Your task to perform on an android device: Open ESPN.com Image 0: 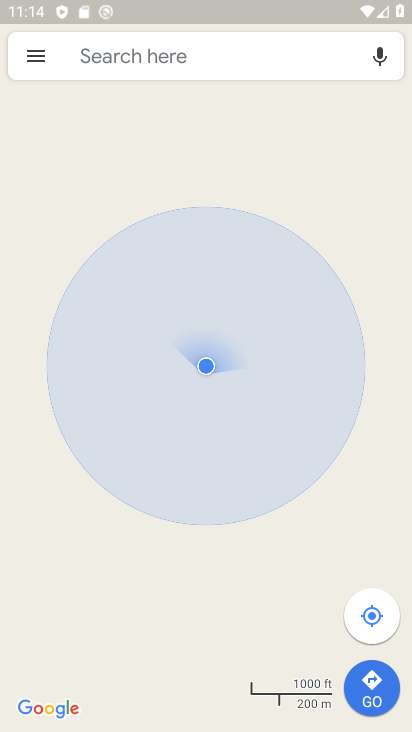
Step 0: press home button
Your task to perform on an android device: Open ESPN.com Image 1: 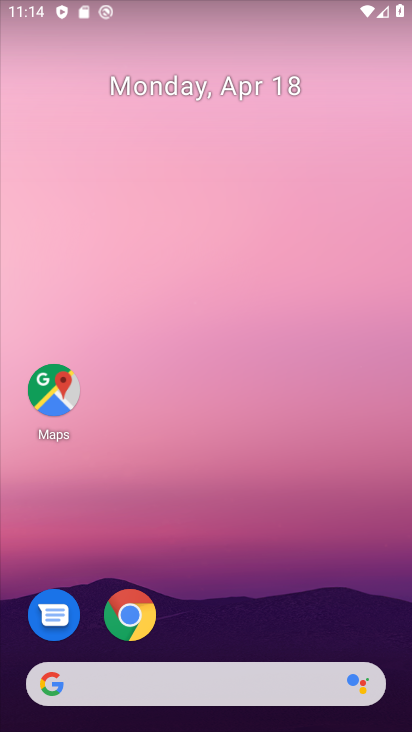
Step 1: drag from (324, 611) to (344, 82)
Your task to perform on an android device: Open ESPN.com Image 2: 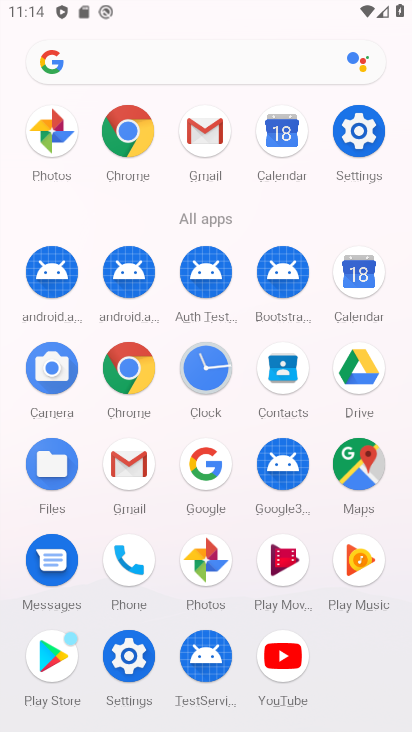
Step 2: click (138, 376)
Your task to perform on an android device: Open ESPN.com Image 3: 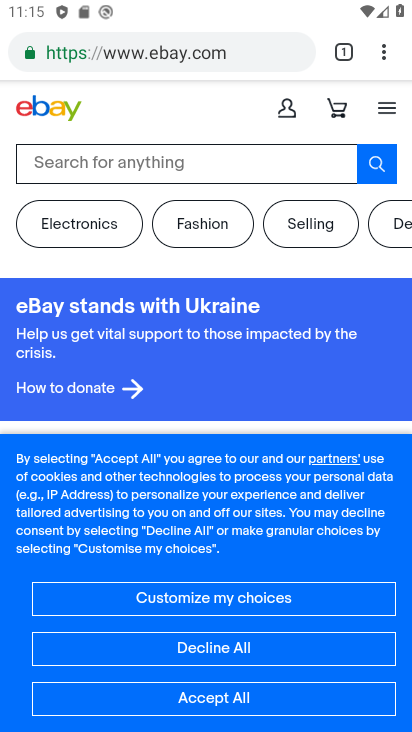
Step 3: press back button
Your task to perform on an android device: Open ESPN.com Image 4: 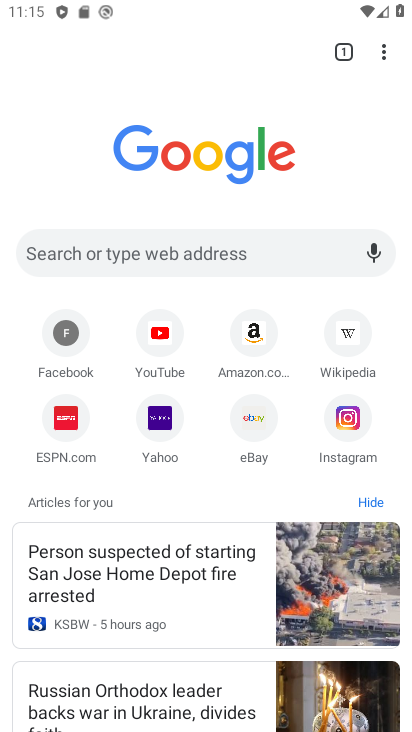
Step 4: click (61, 433)
Your task to perform on an android device: Open ESPN.com Image 5: 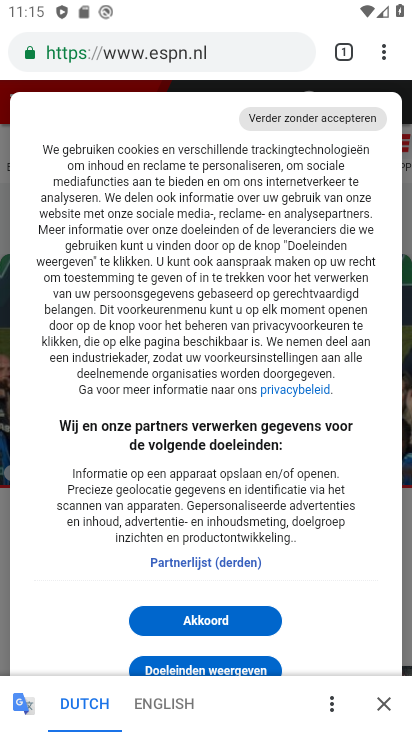
Step 5: task complete